Your task to perform on an android device: turn on data saver in the chrome app Image 0: 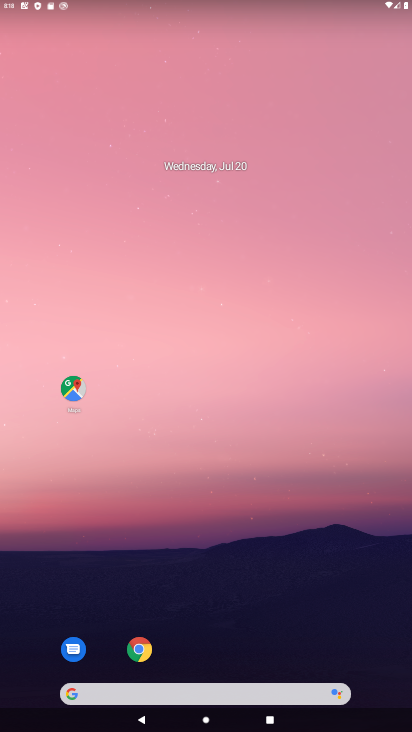
Step 0: drag from (286, 655) to (268, 68)
Your task to perform on an android device: turn on data saver in the chrome app Image 1: 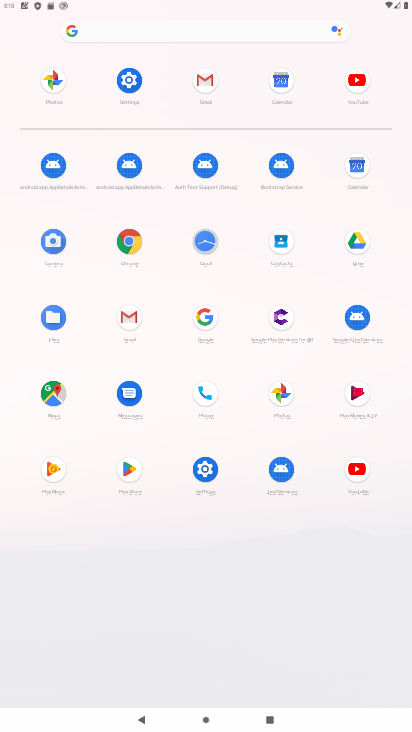
Step 1: click (131, 243)
Your task to perform on an android device: turn on data saver in the chrome app Image 2: 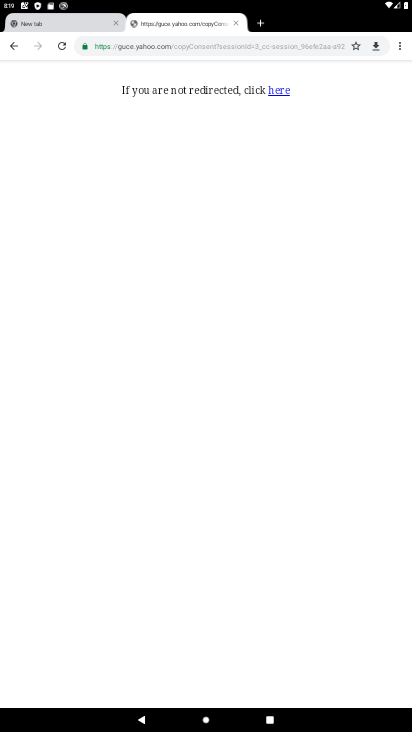
Step 2: click (408, 41)
Your task to perform on an android device: turn on data saver in the chrome app Image 3: 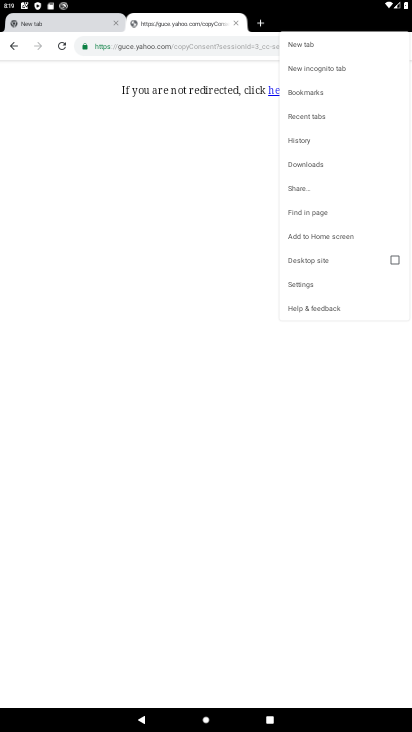
Step 3: click (309, 281)
Your task to perform on an android device: turn on data saver in the chrome app Image 4: 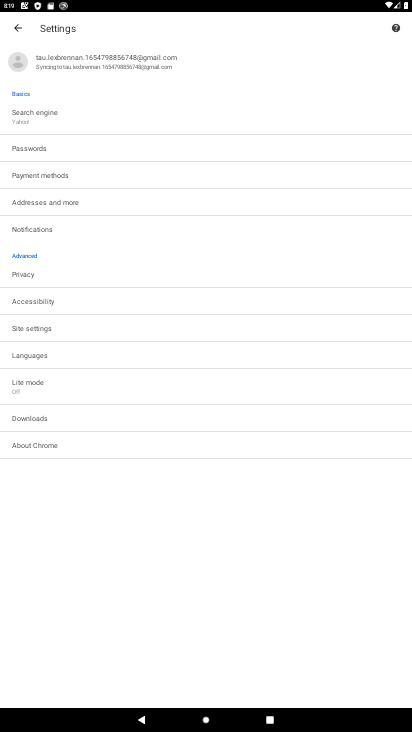
Step 4: click (128, 330)
Your task to perform on an android device: turn on data saver in the chrome app Image 5: 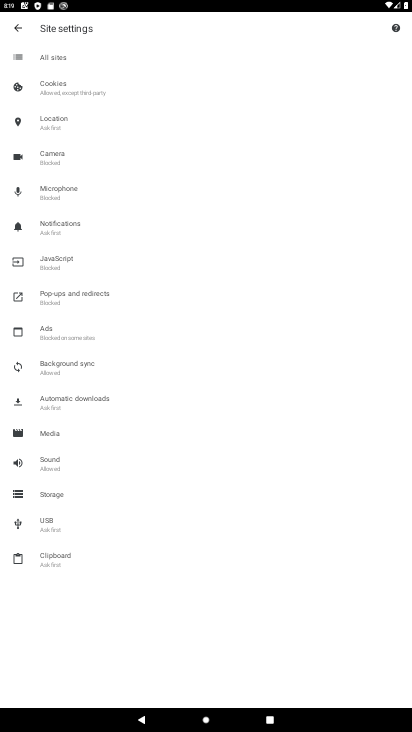
Step 5: task complete